Your task to perform on an android device: create a new album in the google photos Image 0: 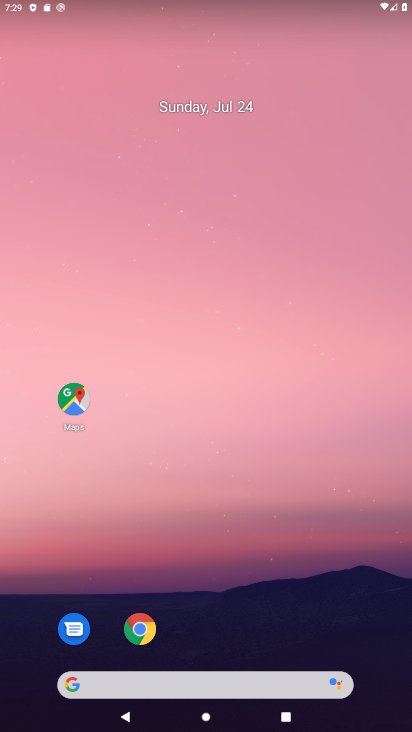
Step 0: drag from (157, 597) to (163, 65)
Your task to perform on an android device: create a new album in the google photos Image 1: 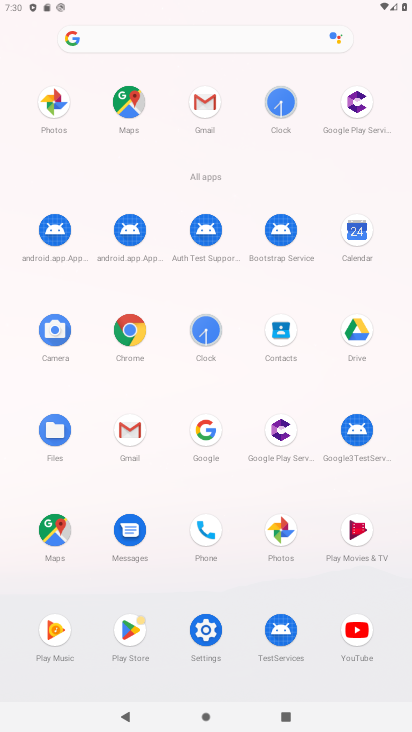
Step 1: click (279, 543)
Your task to perform on an android device: create a new album in the google photos Image 2: 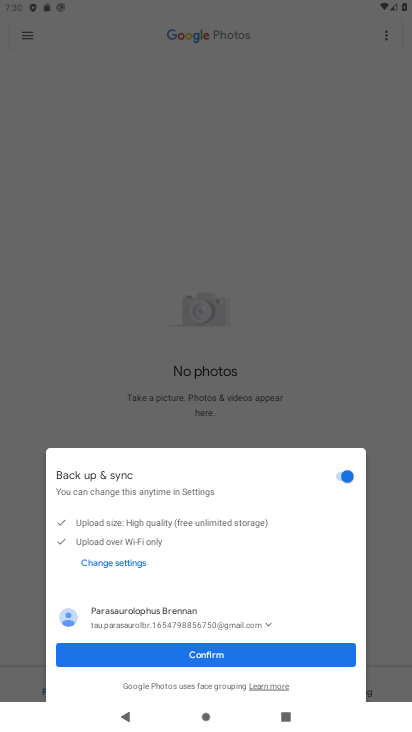
Step 2: click (277, 659)
Your task to perform on an android device: create a new album in the google photos Image 3: 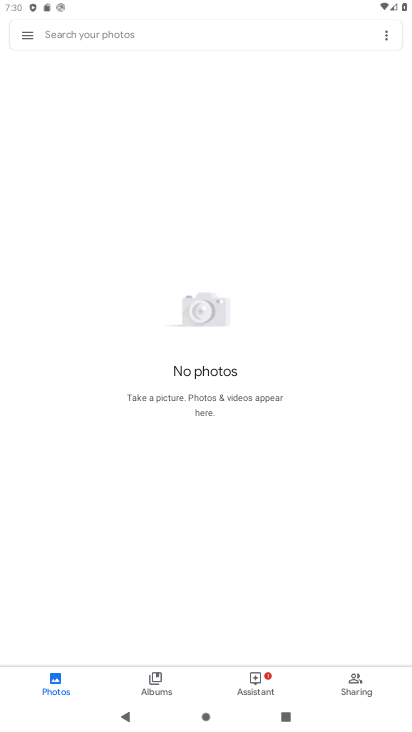
Step 3: click (163, 688)
Your task to perform on an android device: create a new album in the google photos Image 4: 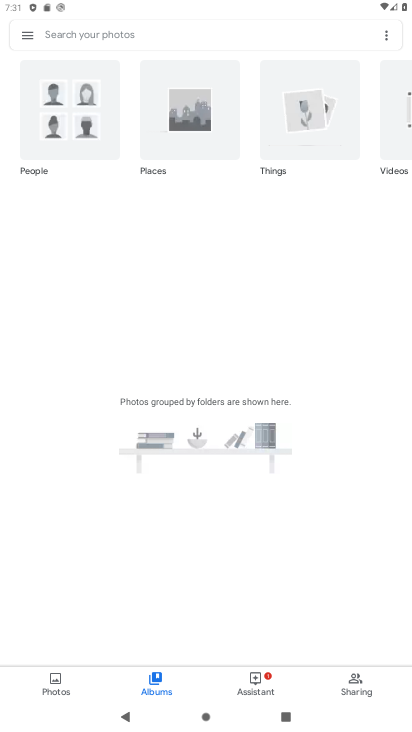
Step 4: click (393, 40)
Your task to perform on an android device: create a new album in the google photos Image 5: 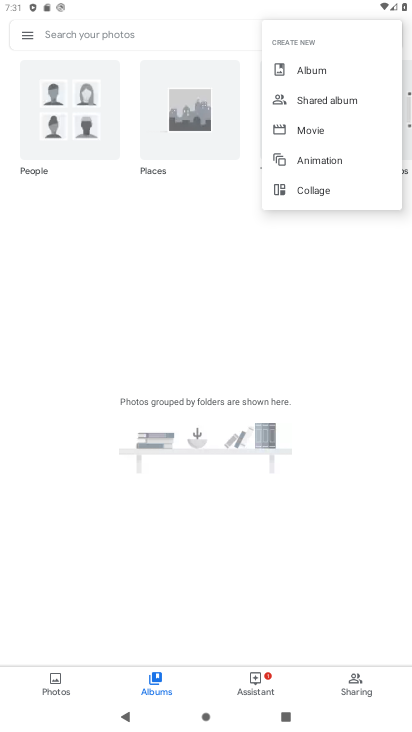
Step 5: click (320, 68)
Your task to perform on an android device: create a new album in the google photos Image 6: 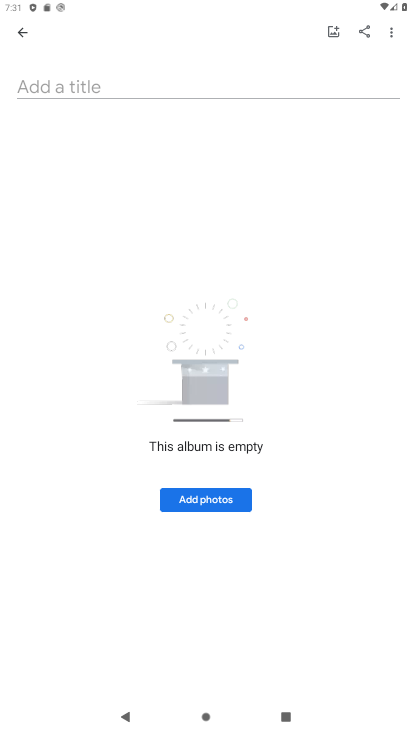
Step 6: click (229, 506)
Your task to perform on an android device: create a new album in the google photos Image 7: 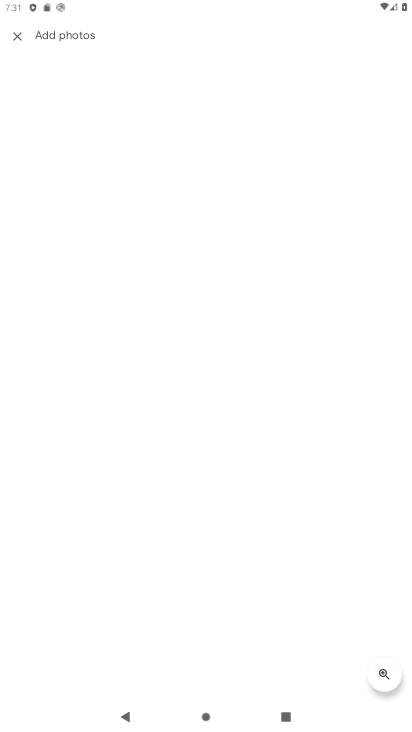
Step 7: click (15, 45)
Your task to perform on an android device: create a new album in the google photos Image 8: 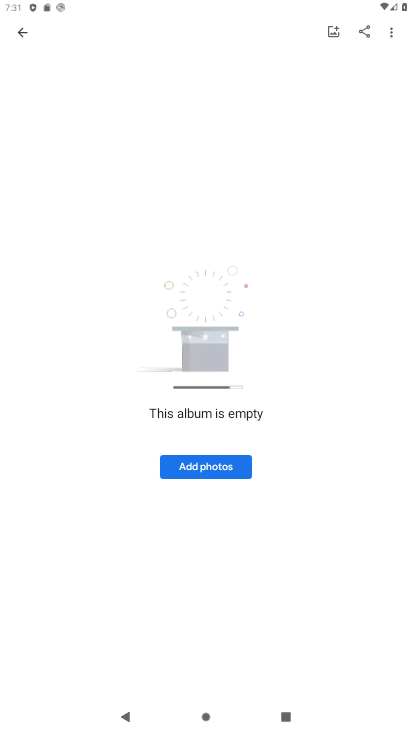
Step 8: click (23, 29)
Your task to perform on an android device: create a new album in the google photos Image 9: 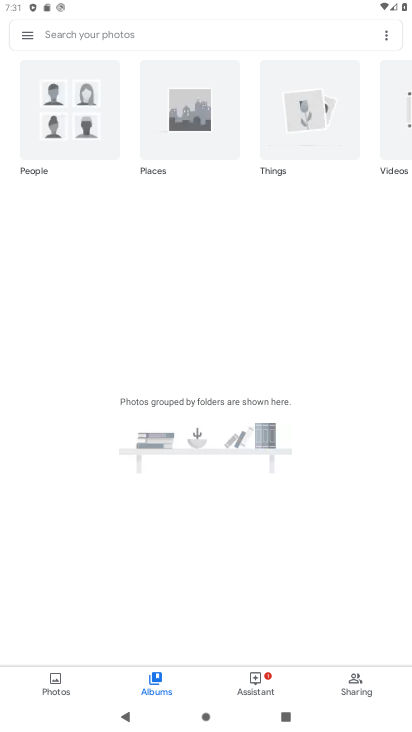
Step 9: task complete